Your task to perform on an android device: Check the weather Image 0: 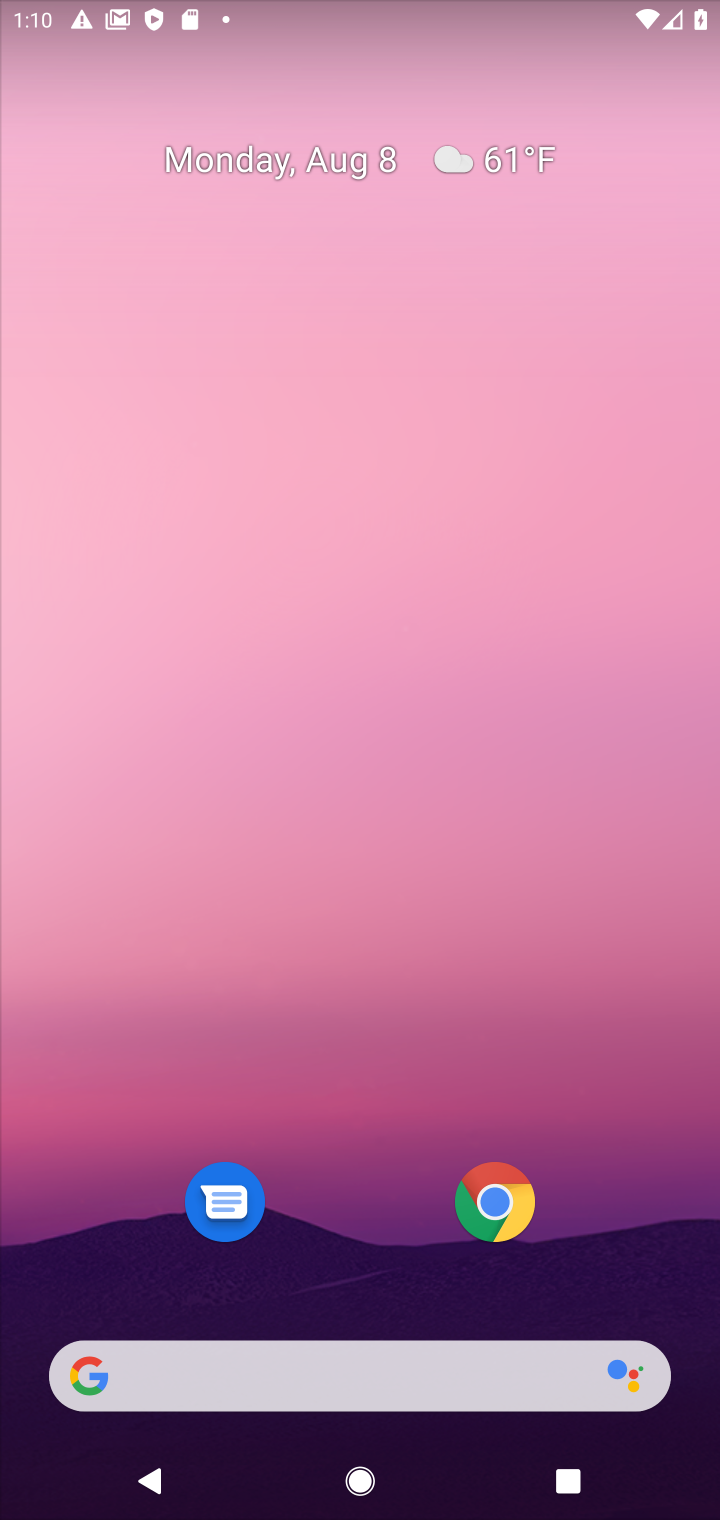
Step 0: press home button
Your task to perform on an android device: Check the weather Image 1: 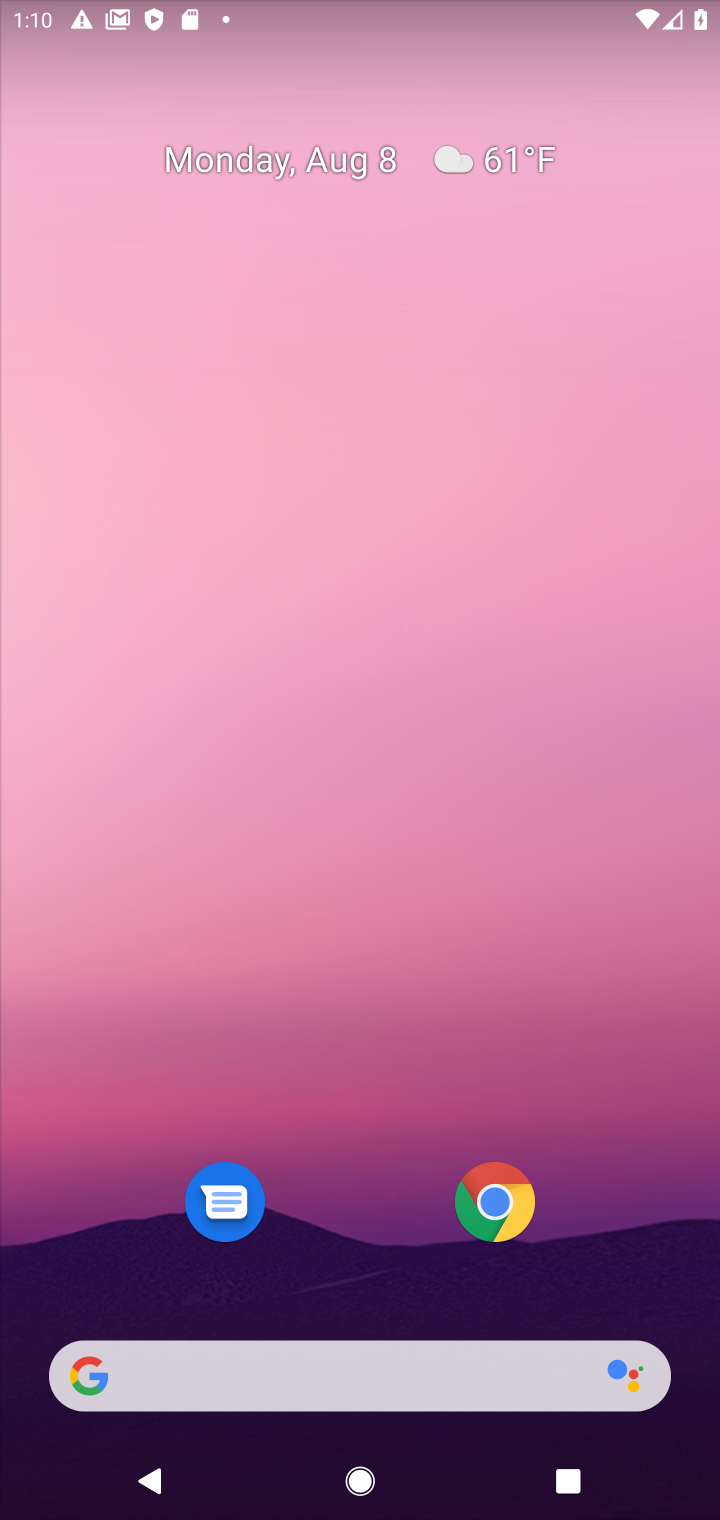
Step 1: click (374, 1375)
Your task to perform on an android device: Check the weather Image 2: 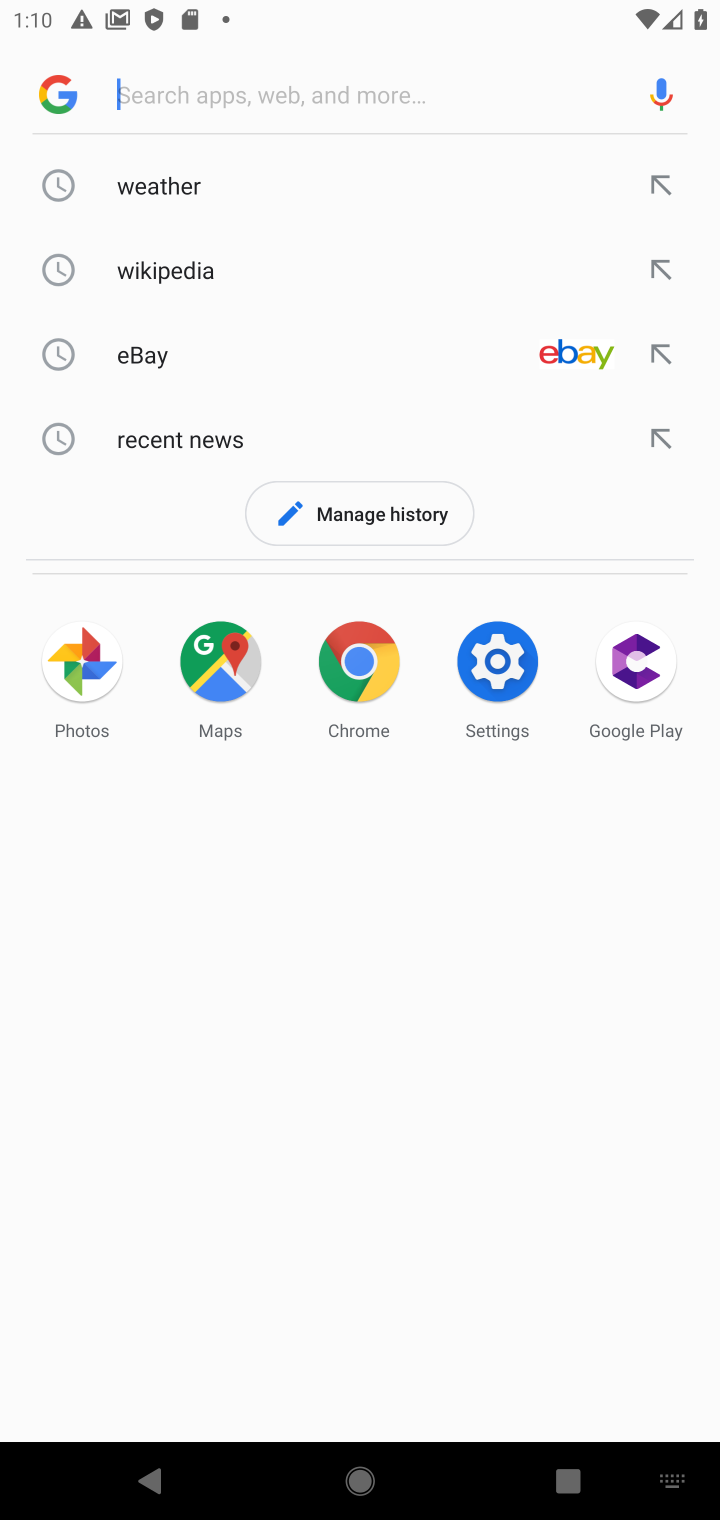
Step 2: click (164, 178)
Your task to perform on an android device: Check the weather Image 3: 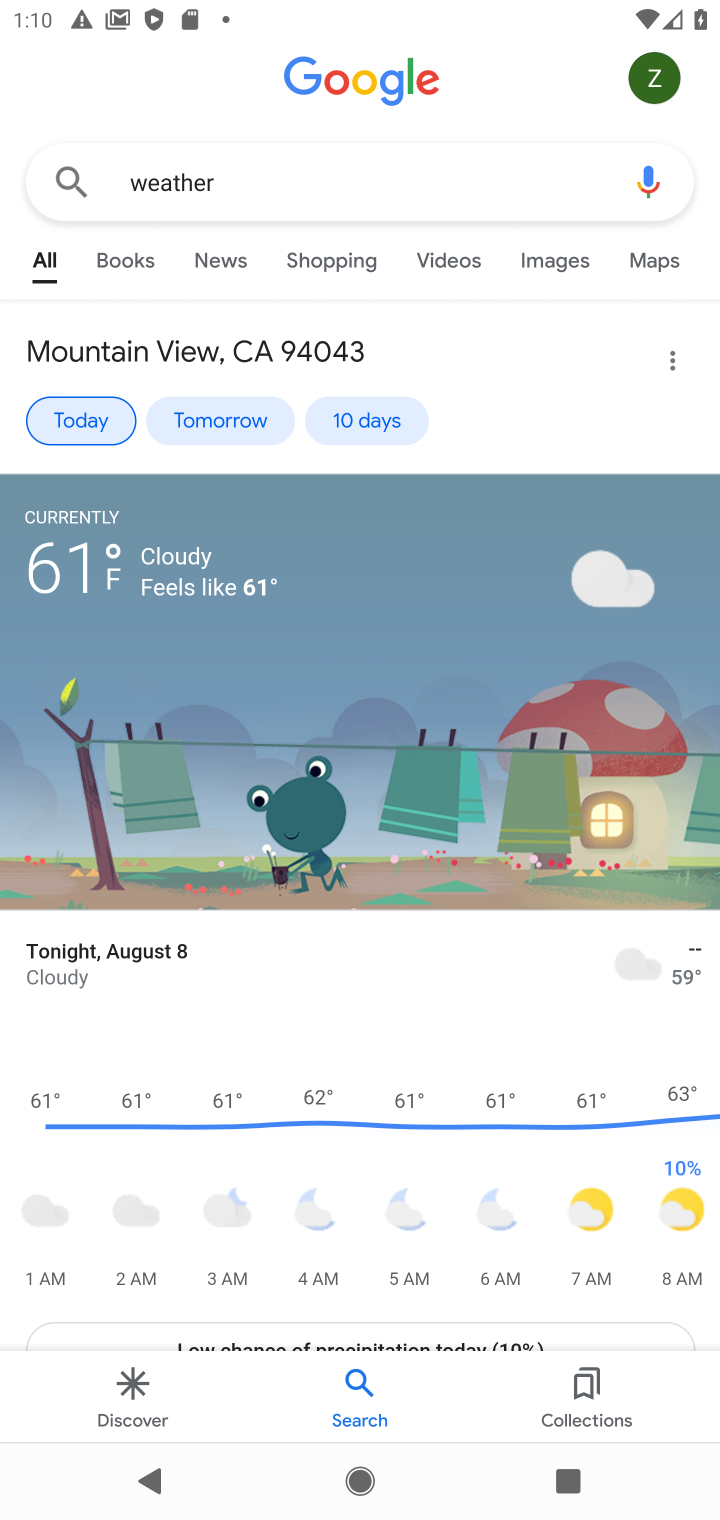
Step 3: task complete